Your task to perform on an android device: change the clock display to analog Image 0: 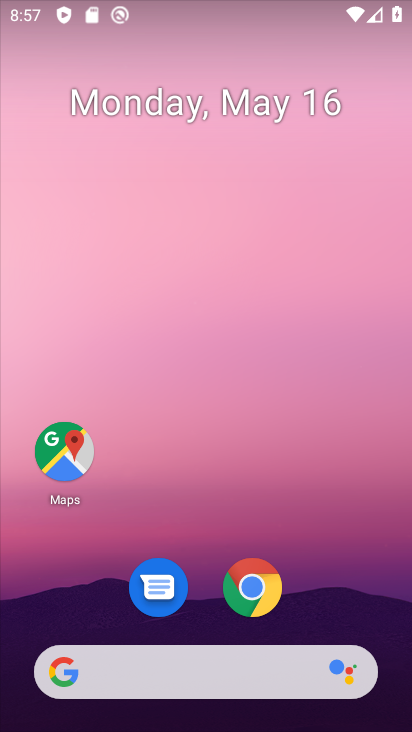
Step 0: click (337, 476)
Your task to perform on an android device: change the clock display to analog Image 1: 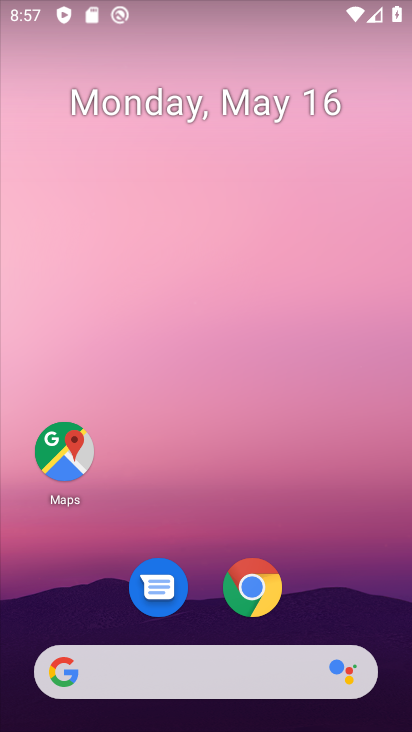
Step 1: drag from (302, 633) to (354, 194)
Your task to perform on an android device: change the clock display to analog Image 2: 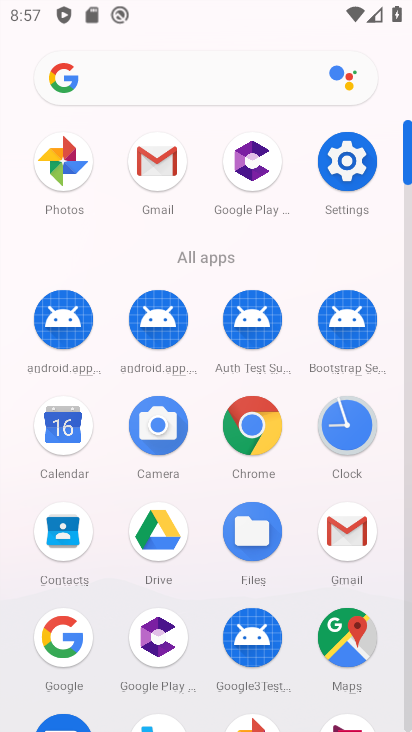
Step 2: click (344, 430)
Your task to perform on an android device: change the clock display to analog Image 3: 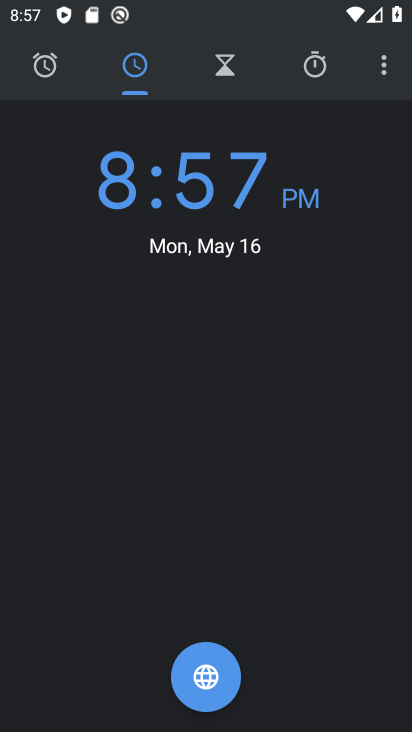
Step 3: click (384, 65)
Your task to perform on an android device: change the clock display to analog Image 4: 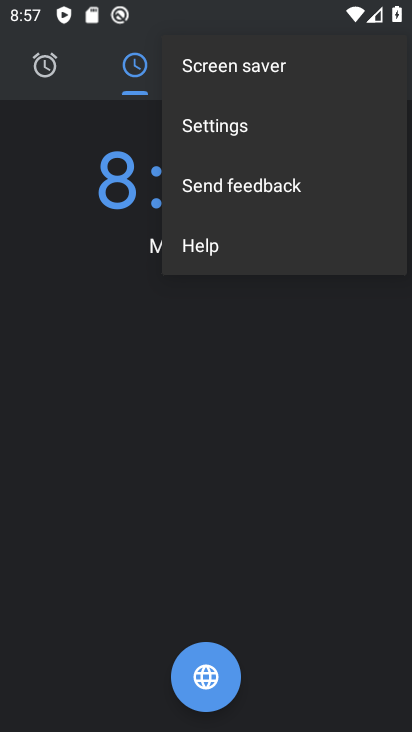
Step 4: click (328, 134)
Your task to perform on an android device: change the clock display to analog Image 5: 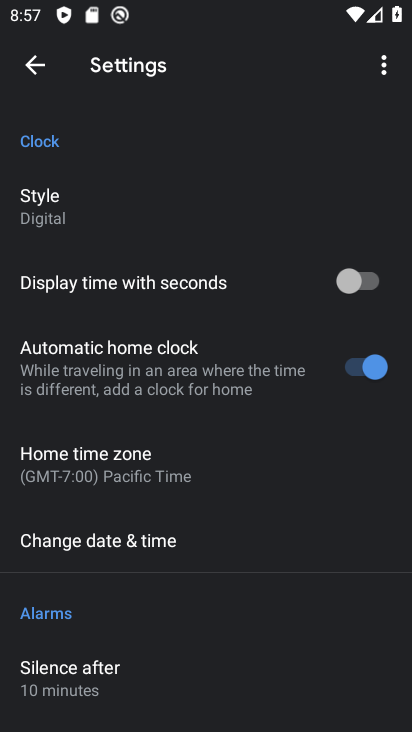
Step 5: click (175, 210)
Your task to perform on an android device: change the clock display to analog Image 6: 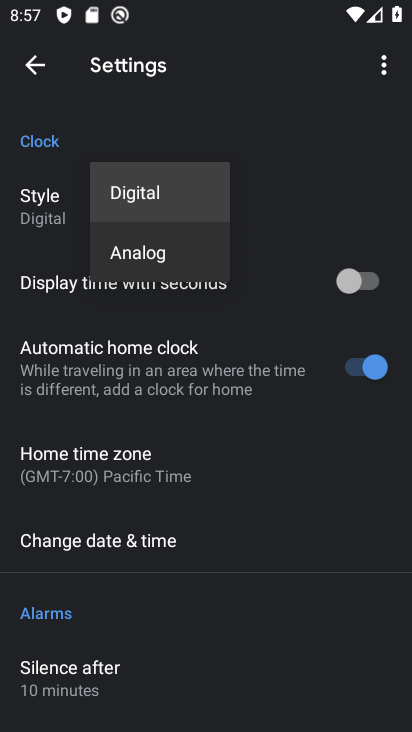
Step 6: click (162, 249)
Your task to perform on an android device: change the clock display to analog Image 7: 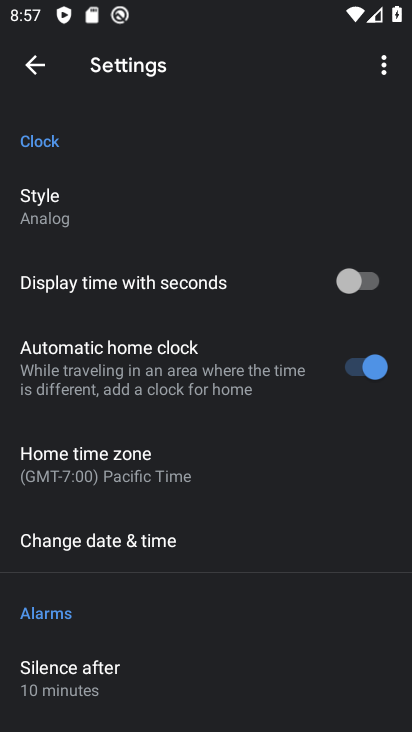
Step 7: task complete